Your task to perform on an android device: turn on the 24-hour format for clock Image 0: 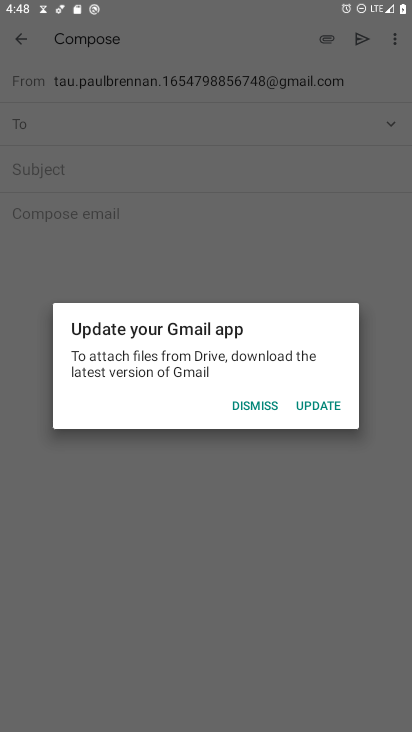
Step 0: press home button
Your task to perform on an android device: turn on the 24-hour format for clock Image 1: 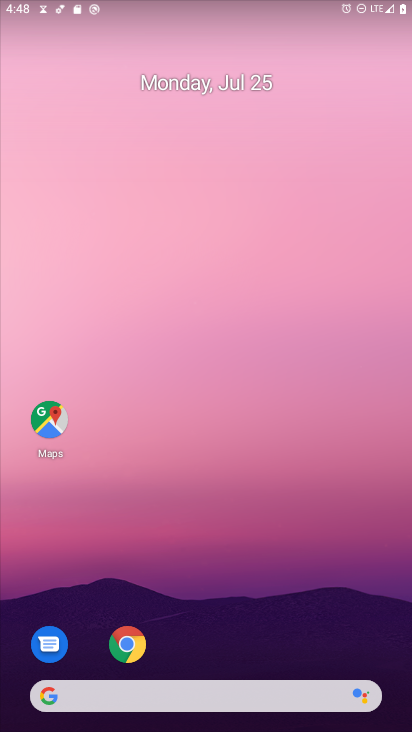
Step 1: drag from (285, 585) to (280, 60)
Your task to perform on an android device: turn on the 24-hour format for clock Image 2: 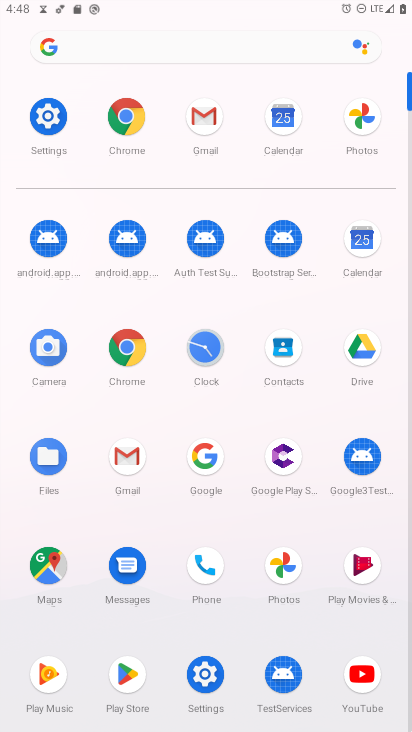
Step 2: click (202, 342)
Your task to perform on an android device: turn on the 24-hour format for clock Image 3: 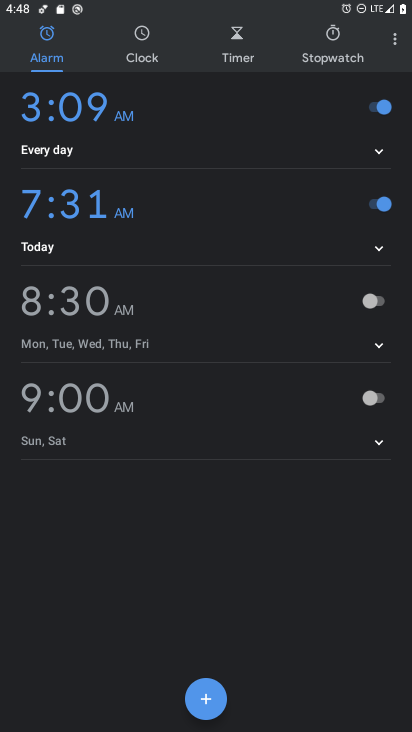
Step 3: click (394, 44)
Your task to perform on an android device: turn on the 24-hour format for clock Image 4: 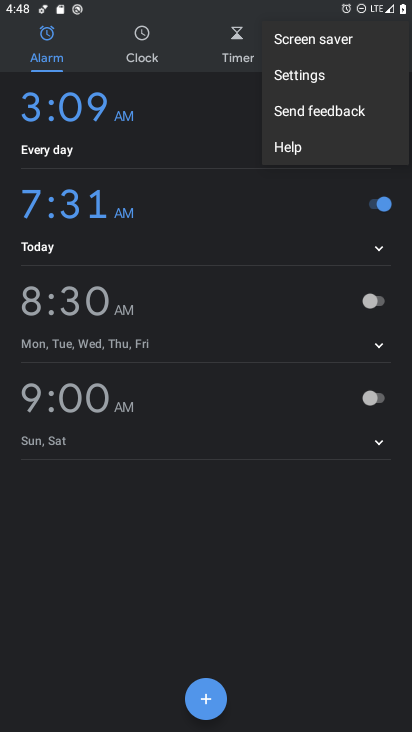
Step 4: click (319, 82)
Your task to perform on an android device: turn on the 24-hour format for clock Image 5: 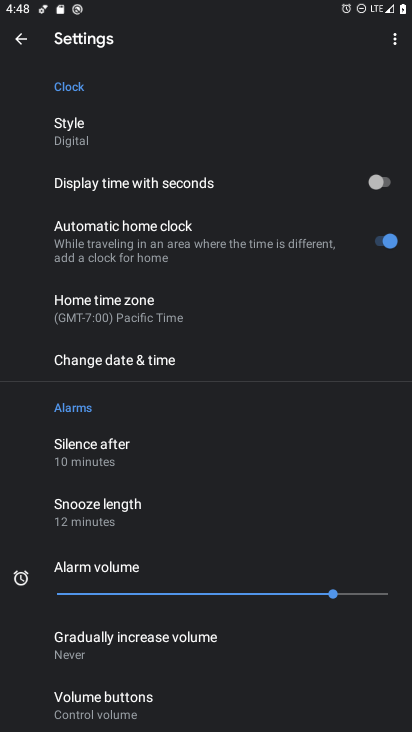
Step 5: click (125, 359)
Your task to perform on an android device: turn on the 24-hour format for clock Image 6: 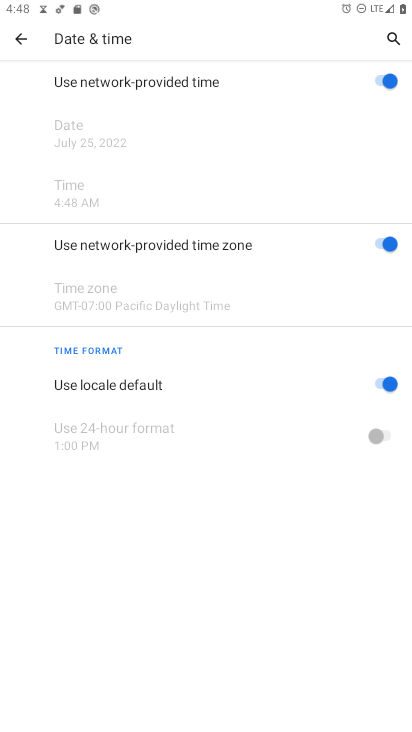
Step 6: click (378, 439)
Your task to perform on an android device: turn on the 24-hour format for clock Image 7: 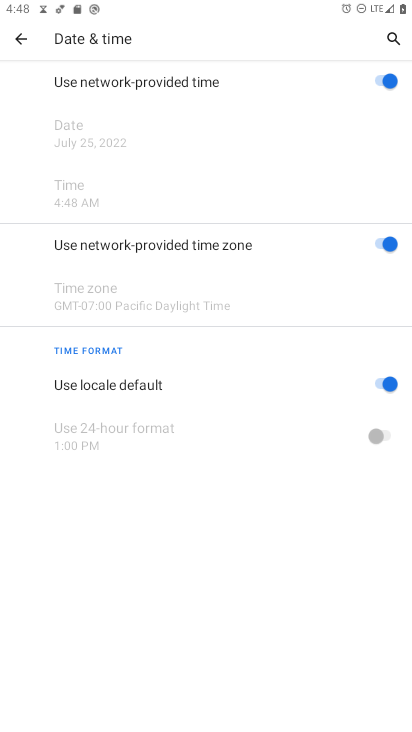
Step 7: click (386, 434)
Your task to perform on an android device: turn on the 24-hour format for clock Image 8: 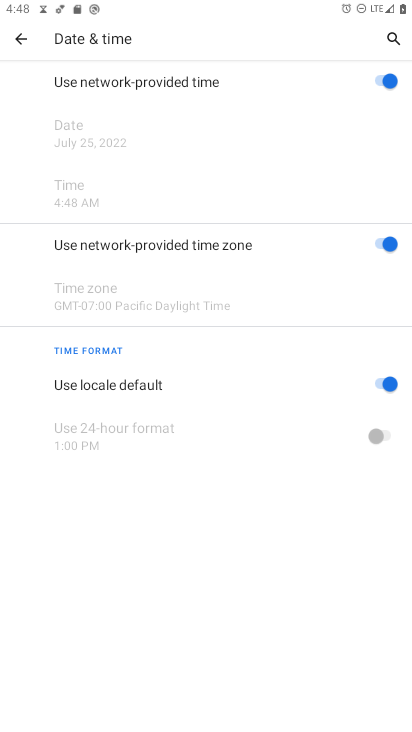
Step 8: drag from (377, 434) to (381, 382)
Your task to perform on an android device: turn on the 24-hour format for clock Image 9: 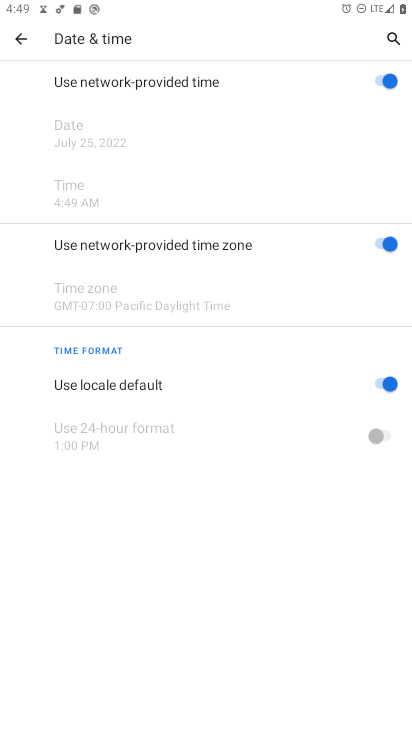
Step 9: click (383, 377)
Your task to perform on an android device: turn on the 24-hour format for clock Image 10: 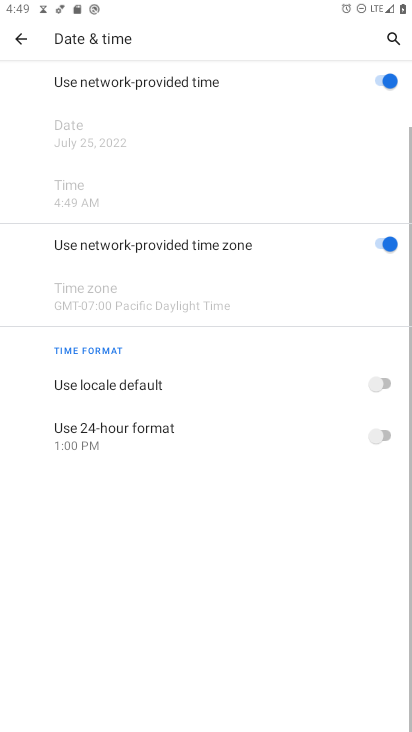
Step 10: click (381, 440)
Your task to perform on an android device: turn on the 24-hour format for clock Image 11: 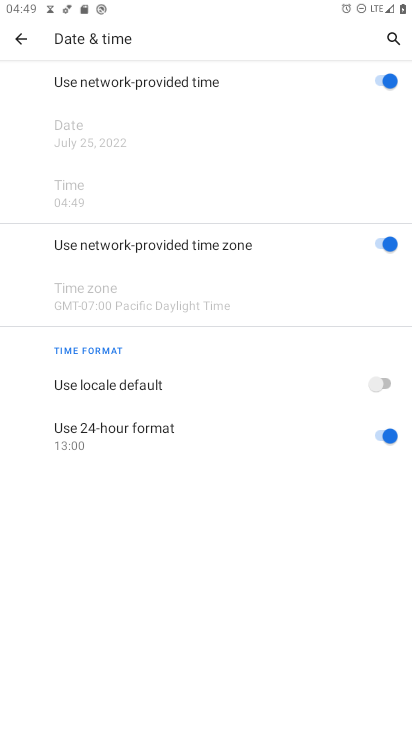
Step 11: task complete